Your task to perform on an android device: Turn off the flashlight Image 0: 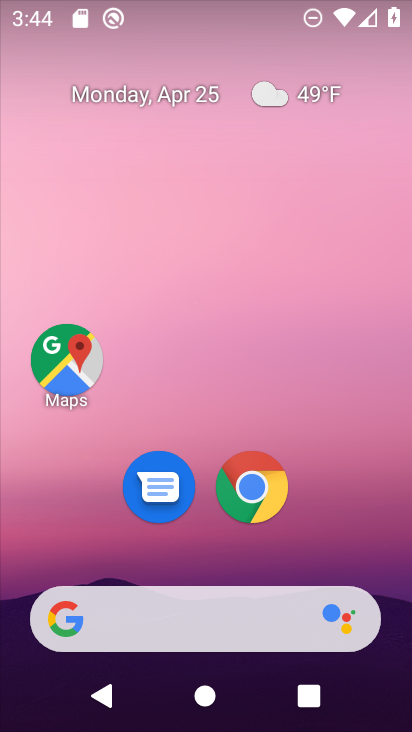
Step 0: drag from (187, 10) to (200, 566)
Your task to perform on an android device: Turn off the flashlight Image 1: 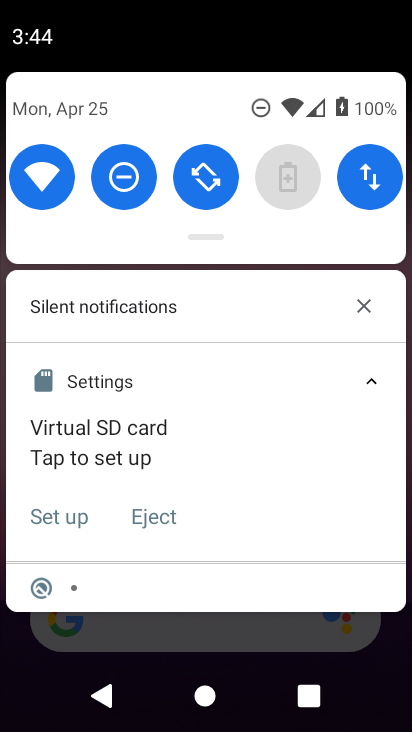
Step 1: task complete